Your task to perform on an android device: turn off picture-in-picture Image 0: 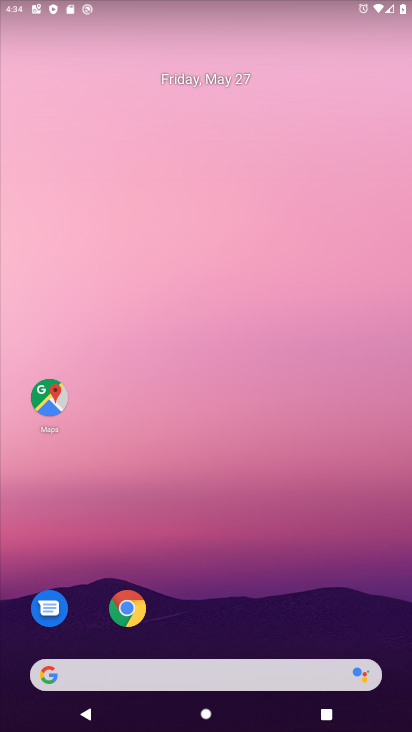
Step 0: click (134, 614)
Your task to perform on an android device: turn off picture-in-picture Image 1: 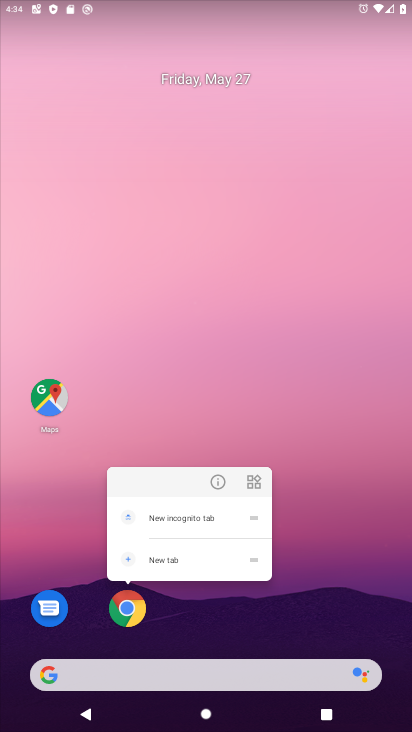
Step 1: click (216, 485)
Your task to perform on an android device: turn off picture-in-picture Image 2: 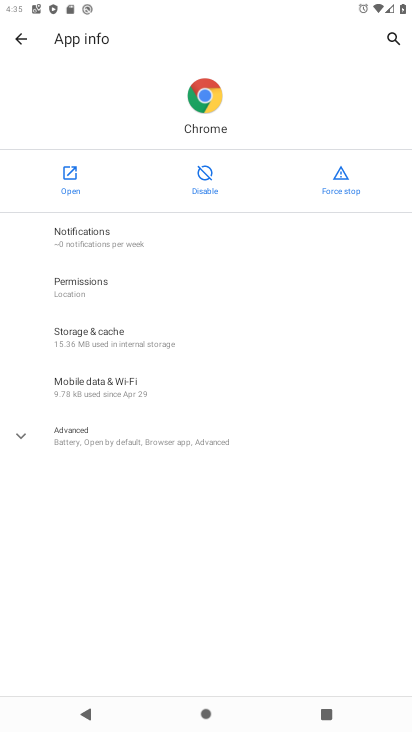
Step 2: click (113, 432)
Your task to perform on an android device: turn off picture-in-picture Image 3: 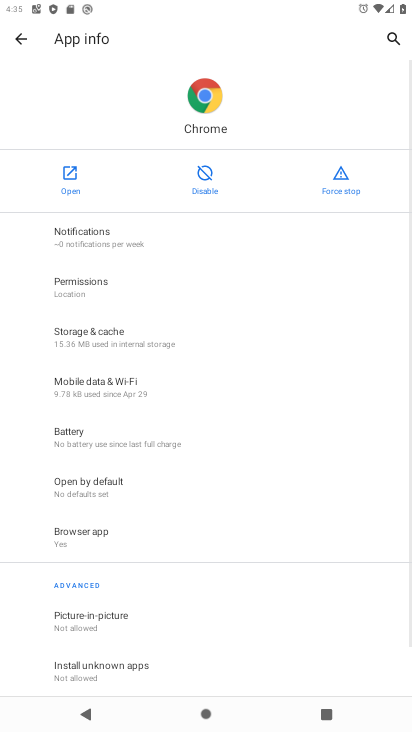
Step 3: click (100, 623)
Your task to perform on an android device: turn off picture-in-picture Image 4: 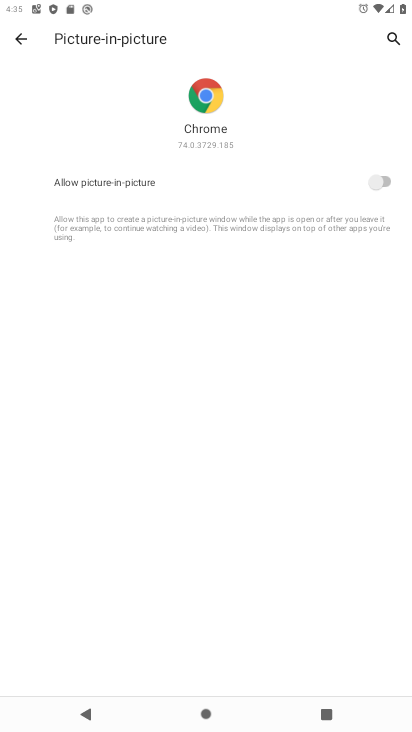
Step 4: task complete